Your task to perform on an android device: Go to Reddit.com Image 0: 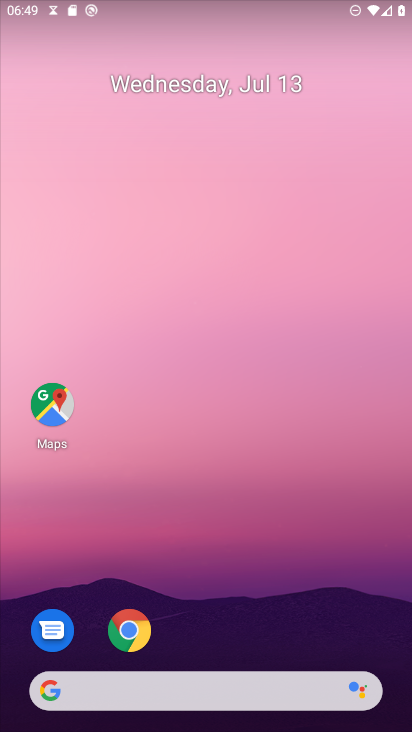
Step 0: drag from (209, 690) to (188, 19)
Your task to perform on an android device: Go to Reddit.com Image 1: 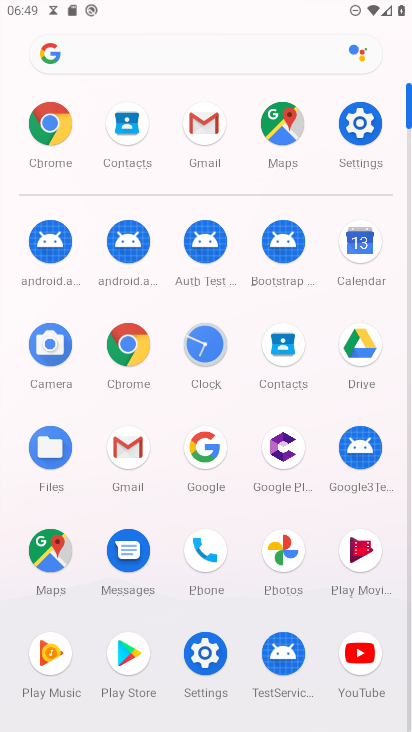
Step 1: click (129, 346)
Your task to perform on an android device: Go to Reddit.com Image 2: 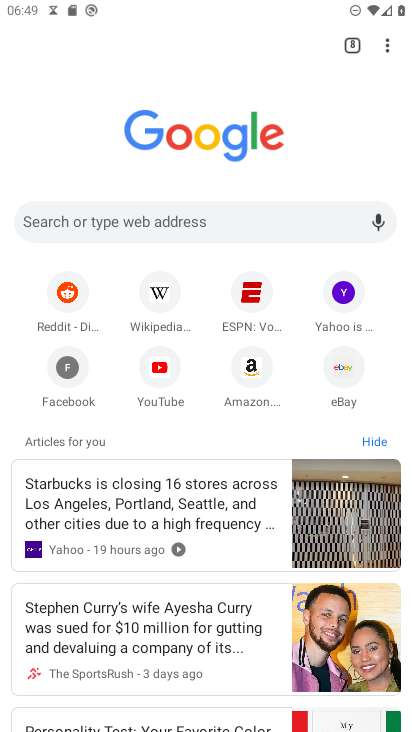
Step 2: click (66, 306)
Your task to perform on an android device: Go to Reddit.com Image 3: 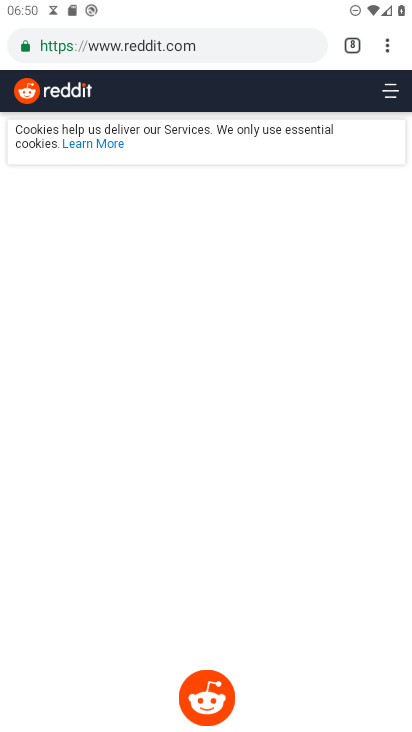
Step 3: task complete